Your task to perform on an android device: Open Google Chrome Image 0: 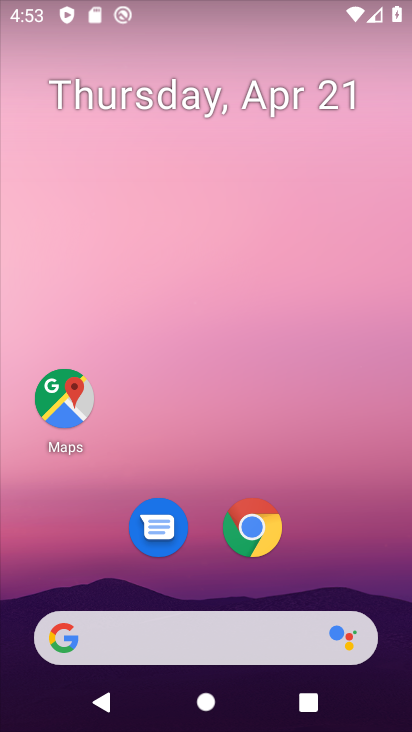
Step 0: click (253, 537)
Your task to perform on an android device: Open Google Chrome Image 1: 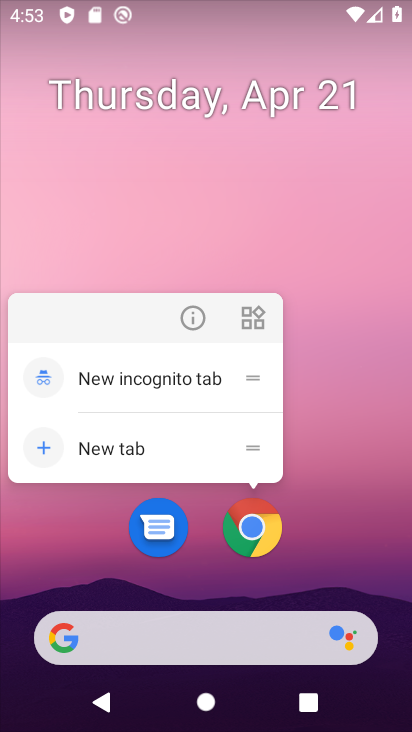
Step 1: click (253, 537)
Your task to perform on an android device: Open Google Chrome Image 2: 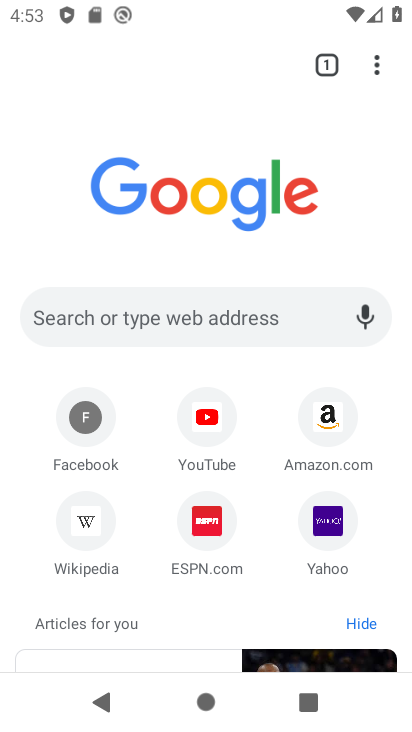
Step 2: task complete